Your task to perform on an android device: Open Android settings Image 0: 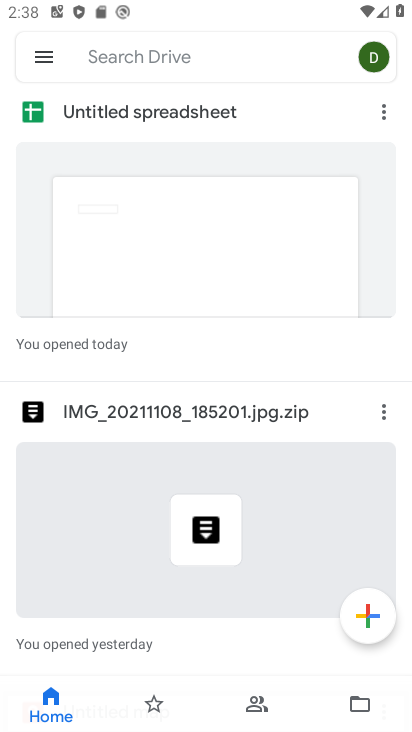
Step 0: press home button
Your task to perform on an android device: Open Android settings Image 1: 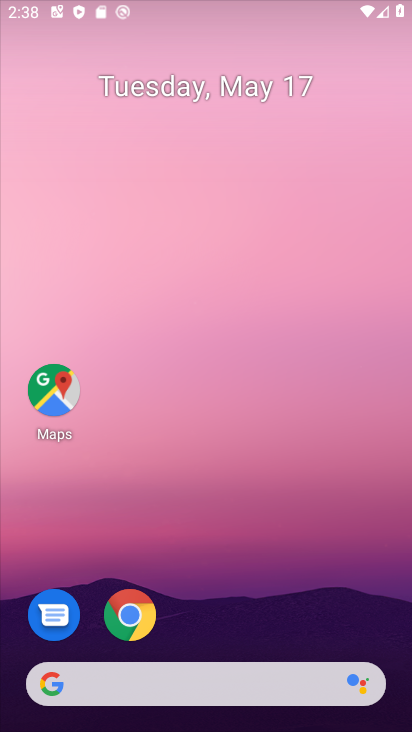
Step 1: drag from (207, 728) to (207, 207)
Your task to perform on an android device: Open Android settings Image 2: 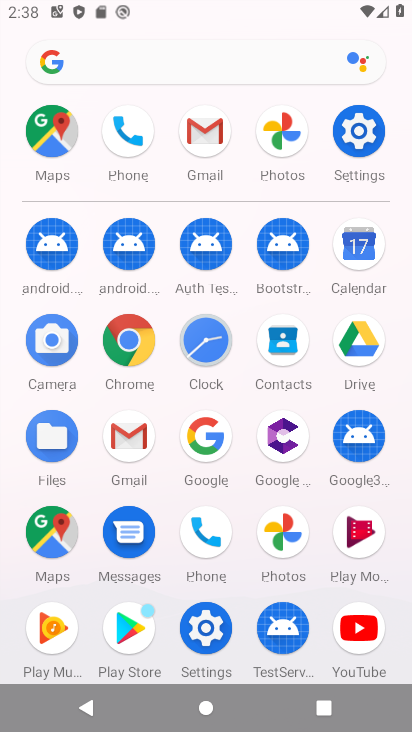
Step 2: click (363, 136)
Your task to perform on an android device: Open Android settings Image 3: 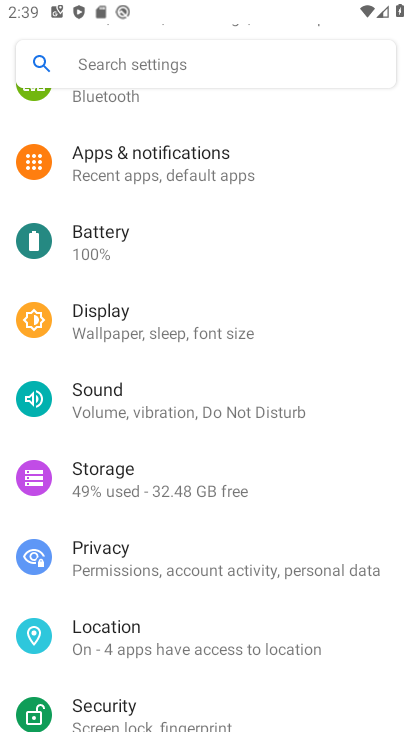
Step 3: task complete